Your task to perform on an android device: Do I have any events tomorrow? Image 0: 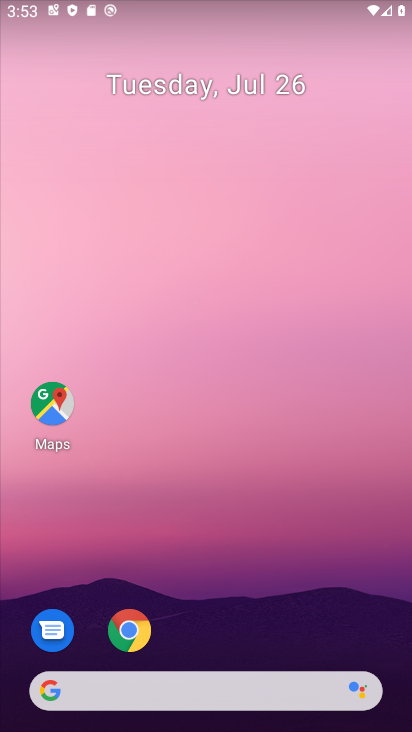
Step 0: drag from (227, 627) to (167, 136)
Your task to perform on an android device: Do I have any events tomorrow? Image 1: 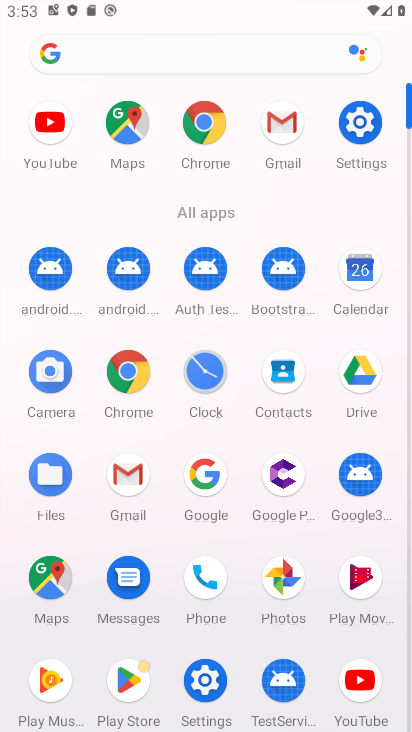
Step 1: click (368, 265)
Your task to perform on an android device: Do I have any events tomorrow? Image 2: 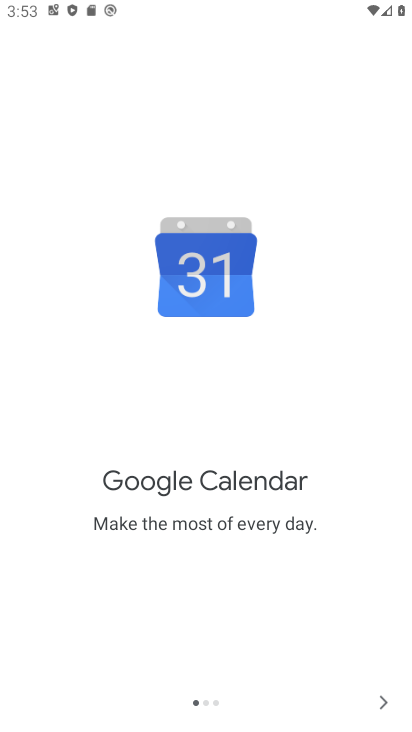
Step 2: click (381, 701)
Your task to perform on an android device: Do I have any events tomorrow? Image 3: 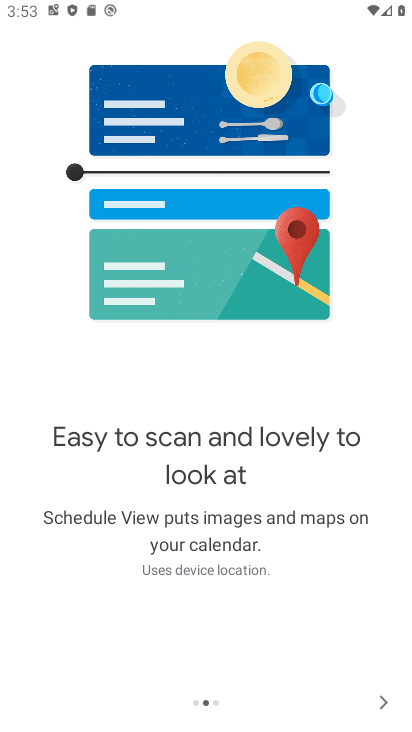
Step 3: click (381, 701)
Your task to perform on an android device: Do I have any events tomorrow? Image 4: 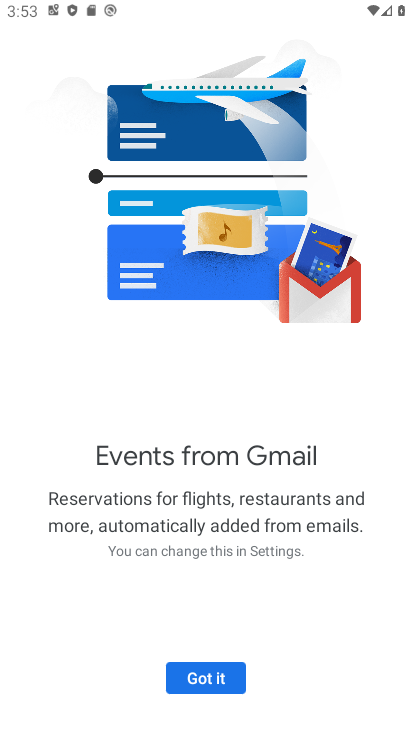
Step 4: click (229, 677)
Your task to perform on an android device: Do I have any events tomorrow? Image 5: 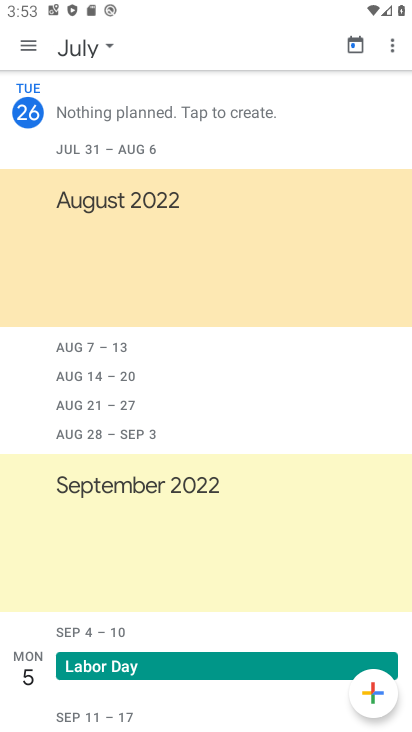
Step 5: click (30, 44)
Your task to perform on an android device: Do I have any events tomorrow? Image 6: 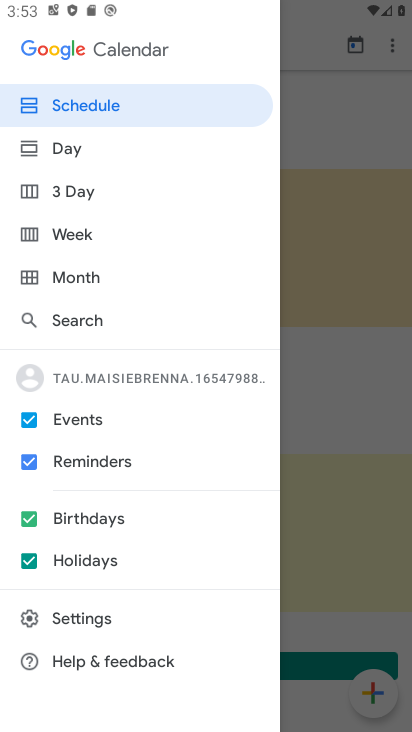
Step 6: click (33, 563)
Your task to perform on an android device: Do I have any events tomorrow? Image 7: 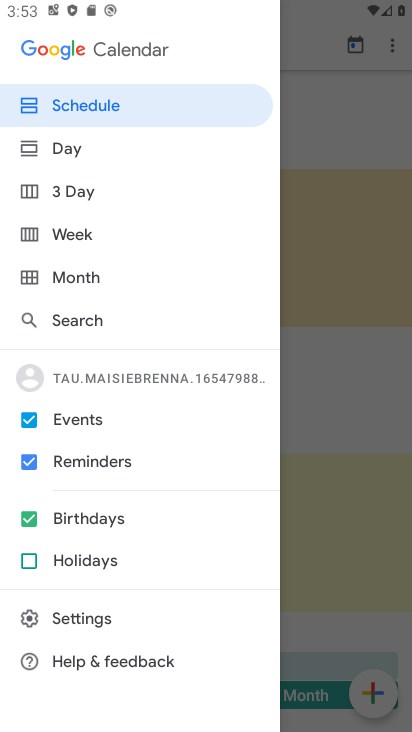
Step 7: click (28, 520)
Your task to perform on an android device: Do I have any events tomorrow? Image 8: 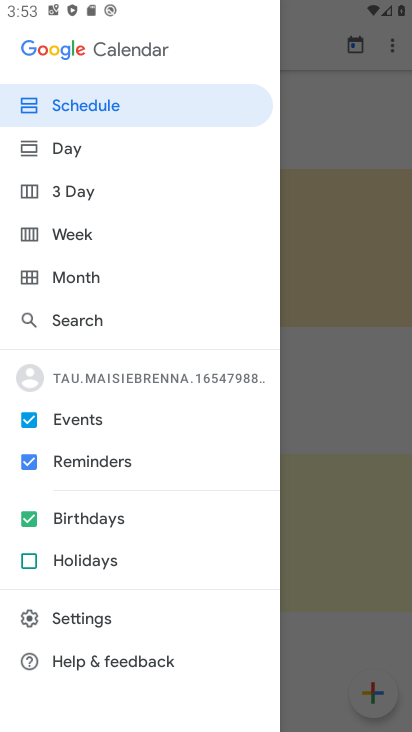
Step 8: click (28, 459)
Your task to perform on an android device: Do I have any events tomorrow? Image 9: 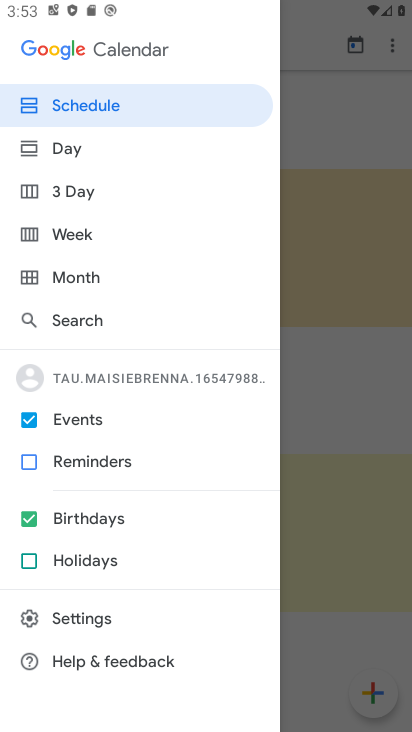
Step 9: click (29, 519)
Your task to perform on an android device: Do I have any events tomorrow? Image 10: 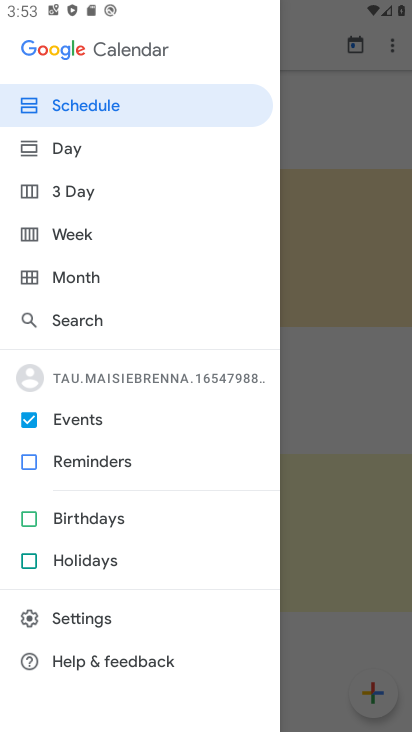
Step 10: click (96, 144)
Your task to perform on an android device: Do I have any events tomorrow? Image 11: 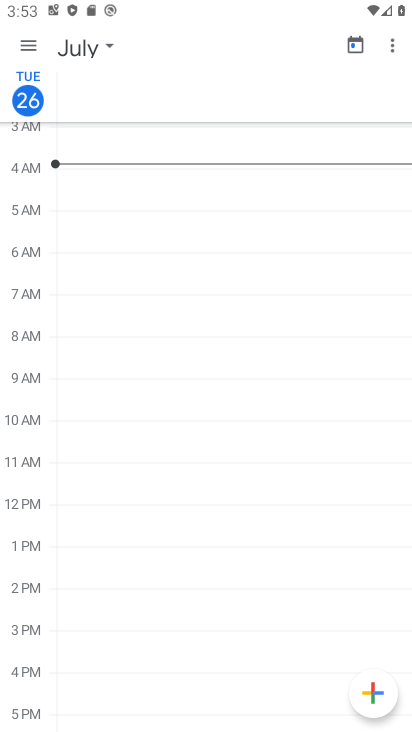
Step 11: task complete